Your task to perform on an android device: find which apps use the phone's location Image 0: 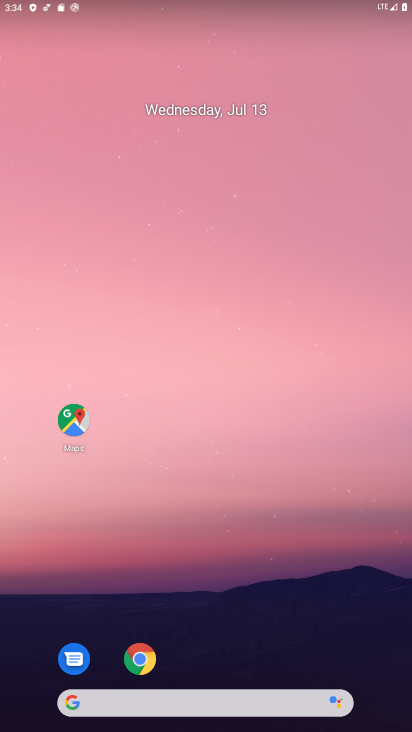
Step 0: drag from (216, 666) to (157, 4)
Your task to perform on an android device: find which apps use the phone's location Image 1: 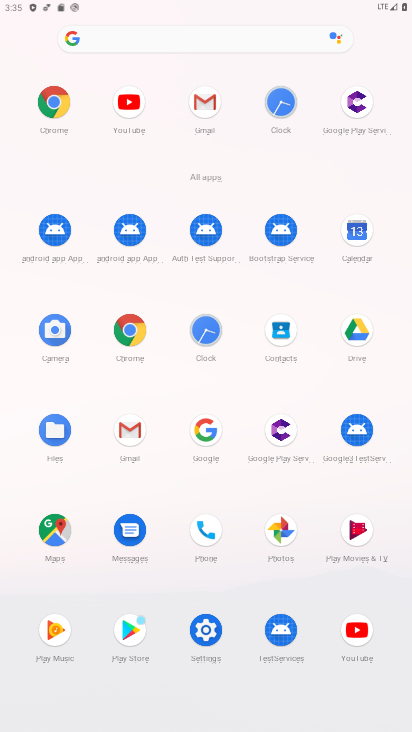
Step 1: click (204, 625)
Your task to perform on an android device: find which apps use the phone's location Image 2: 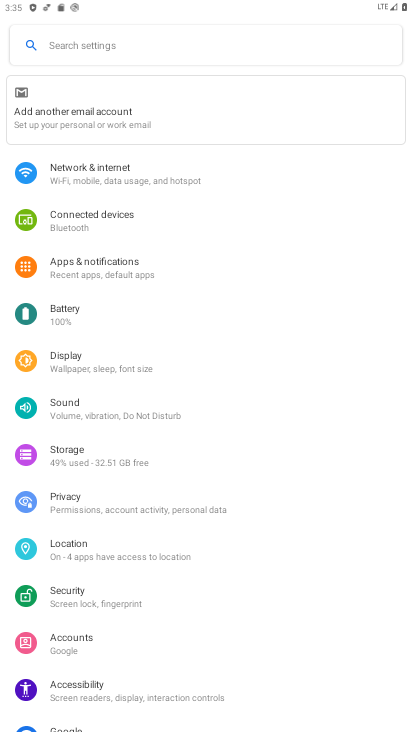
Step 2: click (98, 543)
Your task to perform on an android device: find which apps use the phone's location Image 3: 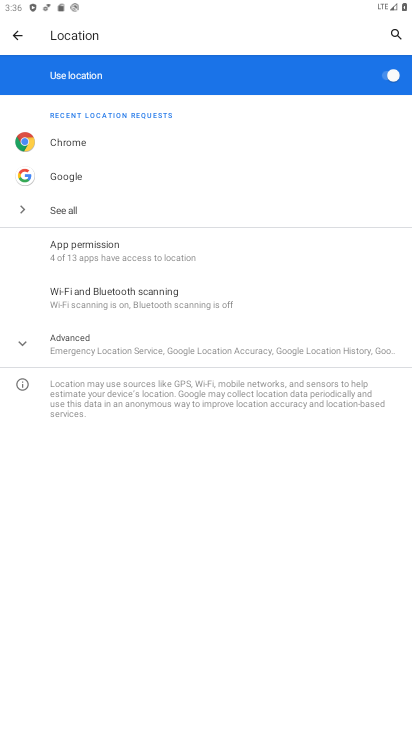
Step 3: click (81, 243)
Your task to perform on an android device: find which apps use the phone's location Image 4: 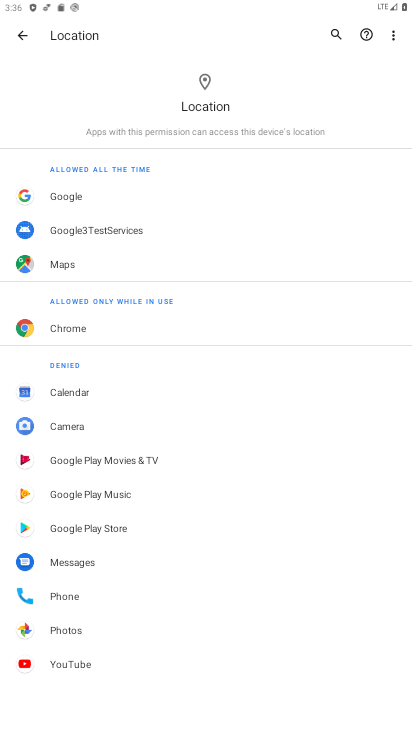
Step 4: task complete